Your task to perform on an android device: What's on my calendar tomorrow? Image 0: 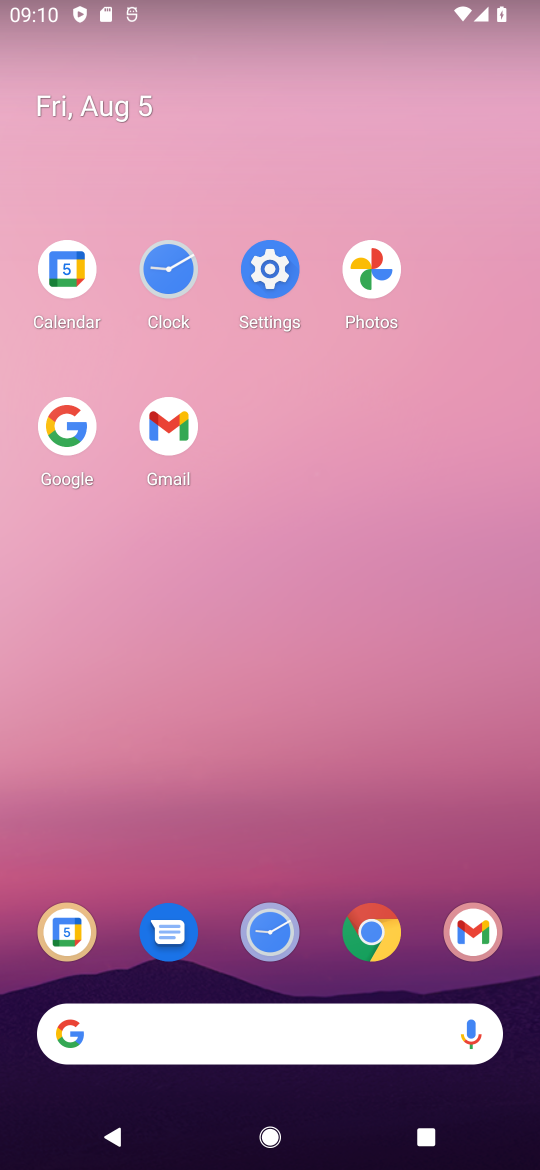
Step 0: click (64, 263)
Your task to perform on an android device: What's on my calendar tomorrow? Image 1: 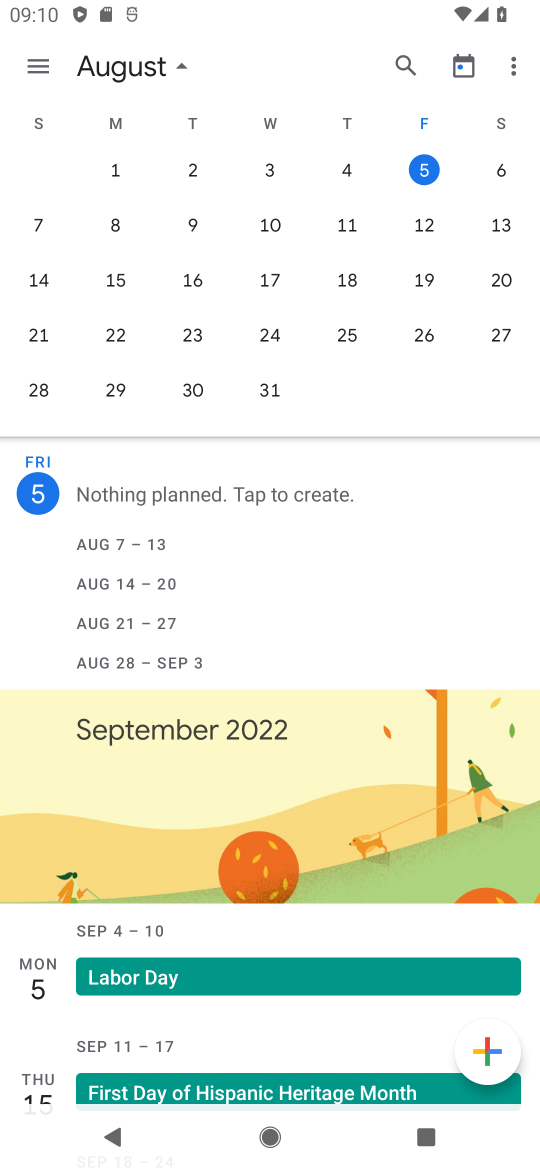
Step 1: click (512, 162)
Your task to perform on an android device: What's on my calendar tomorrow? Image 2: 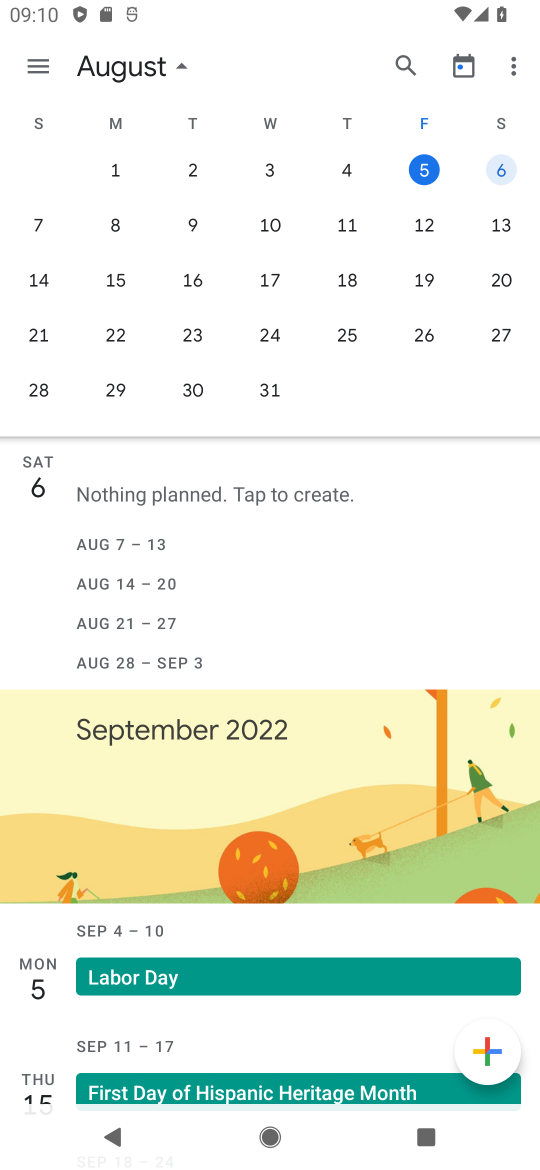
Step 2: click (489, 179)
Your task to perform on an android device: What's on my calendar tomorrow? Image 3: 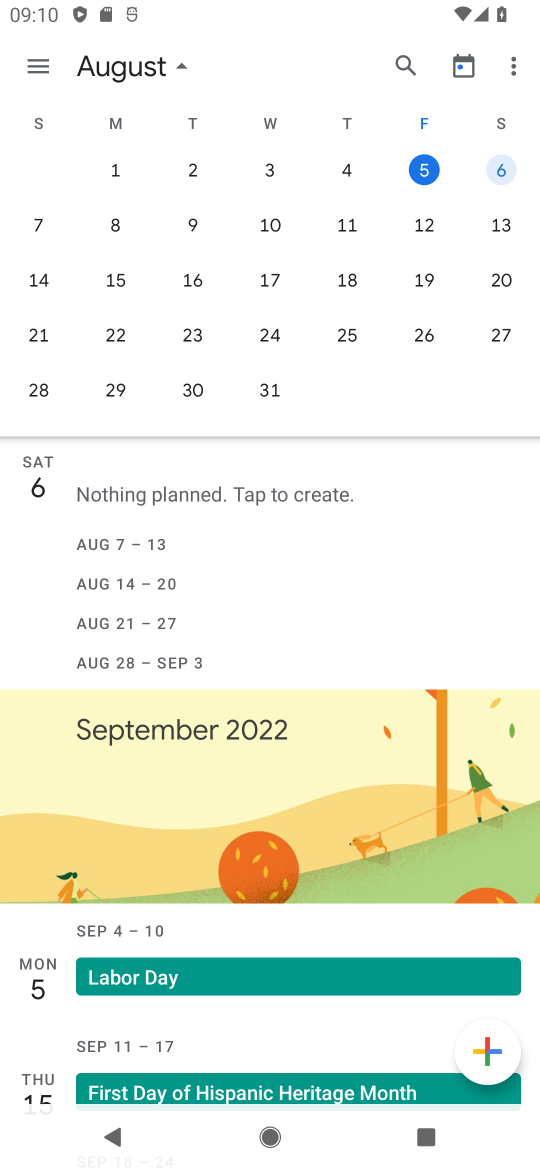
Step 3: click (502, 173)
Your task to perform on an android device: What's on my calendar tomorrow? Image 4: 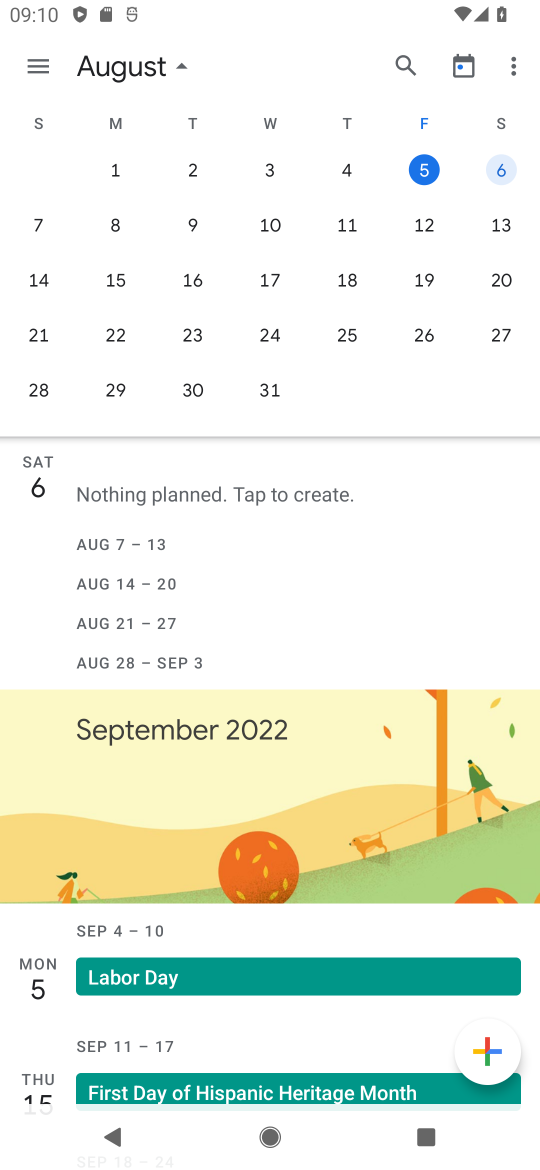
Step 4: task complete